Your task to perform on an android device: Open settings on Google Maps Image 0: 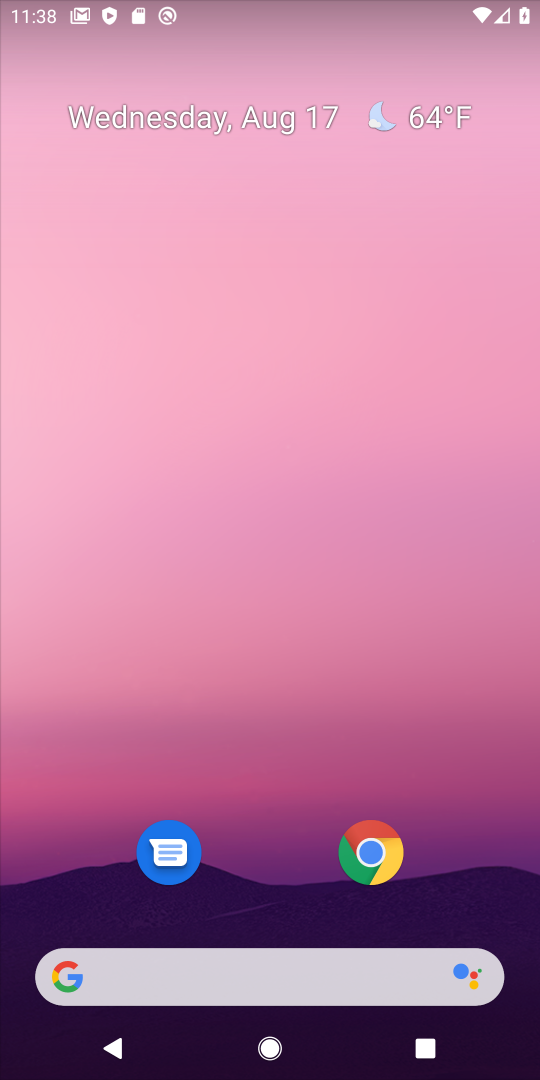
Step 0: drag from (72, 624) to (236, 290)
Your task to perform on an android device: Open settings on Google Maps Image 1: 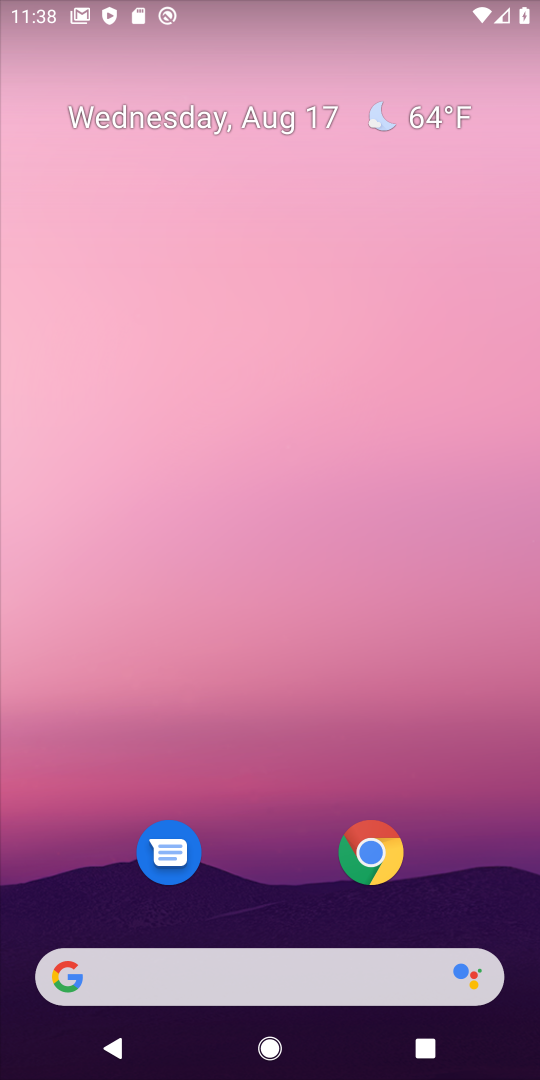
Step 1: task complete